Your task to perform on an android device: Open sound settings Image 0: 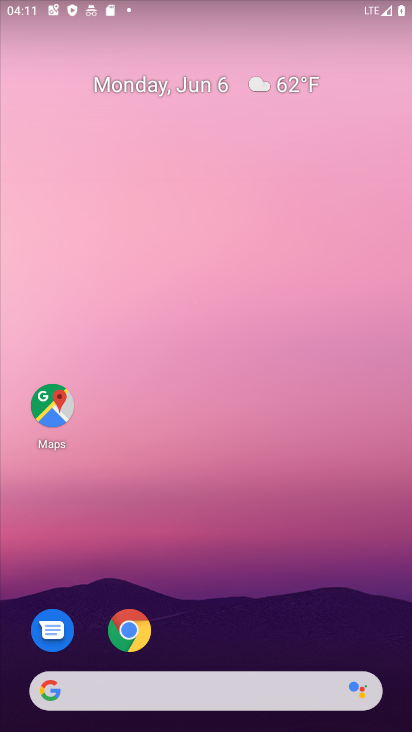
Step 0: press home button
Your task to perform on an android device: Open sound settings Image 1: 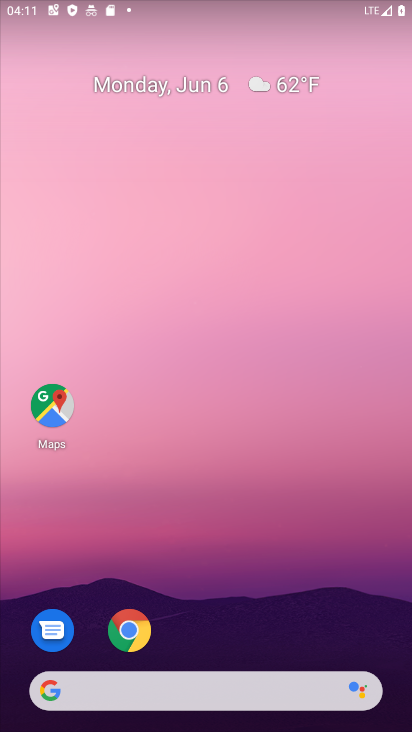
Step 1: drag from (155, 641) to (274, 183)
Your task to perform on an android device: Open sound settings Image 2: 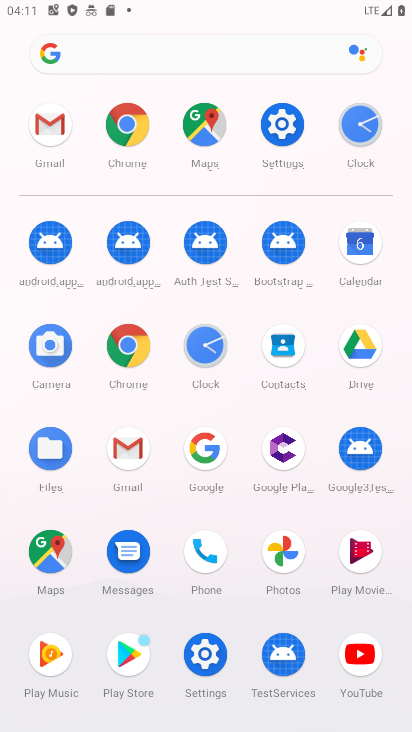
Step 2: click (288, 134)
Your task to perform on an android device: Open sound settings Image 3: 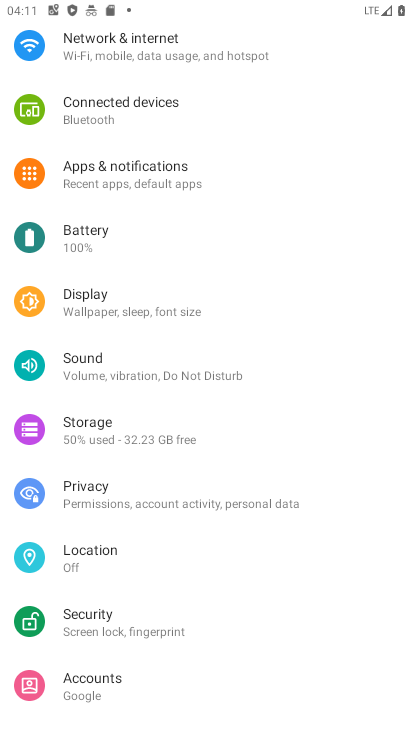
Step 3: click (83, 382)
Your task to perform on an android device: Open sound settings Image 4: 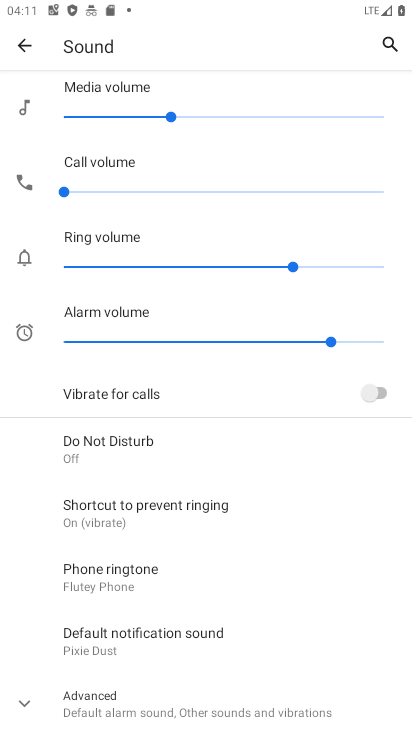
Step 4: task complete